Your task to perform on an android device: delete browsing data in the chrome app Image 0: 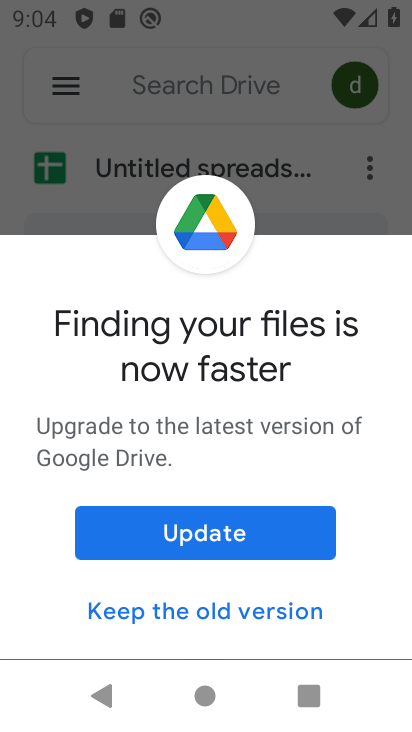
Step 0: press home button
Your task to perform on an android device: delete browsing data in the chrome app Image 1: 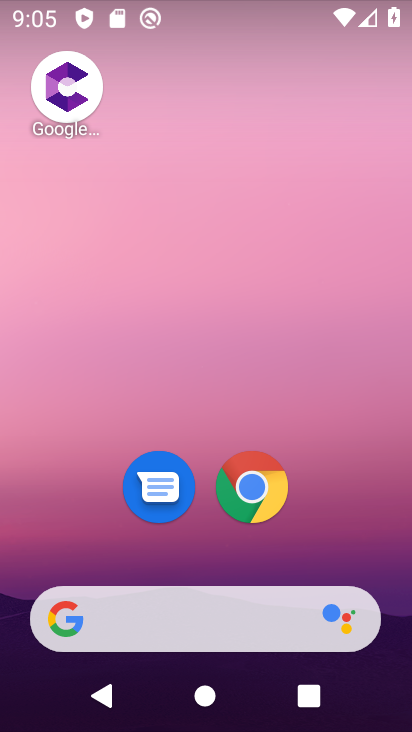
Step 1: click (279, 505)
Your task to perform on an android device: delete browsing data in the chrome app Image 2: 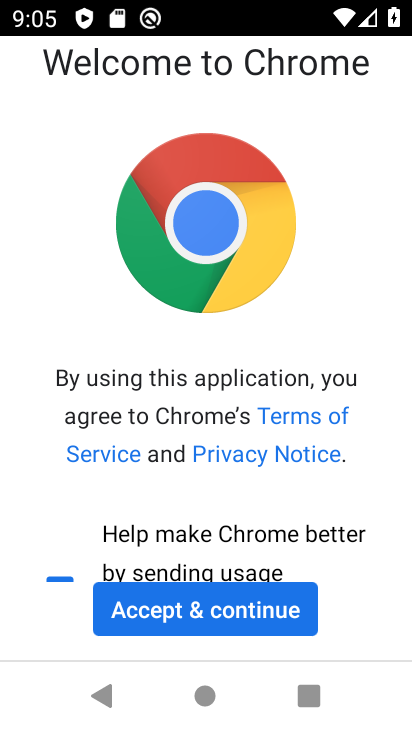
Step 2: click (266, 610)
Your task to perform on an android device: delete browsing data in the chrome app Image 3: 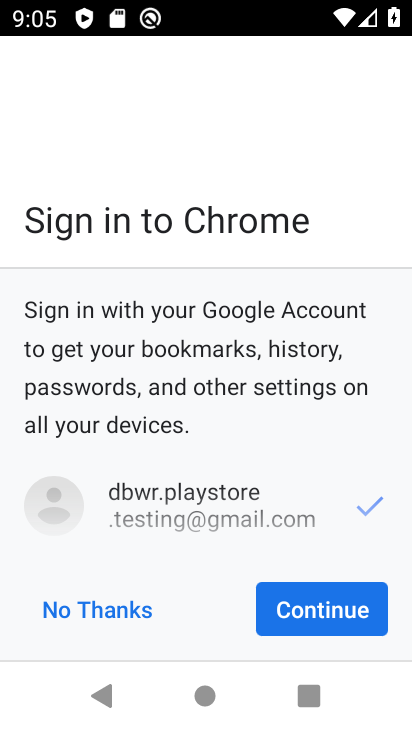
Step 3: click (346, 611)
Your task to perform on an android device: delete browsing data in the chrome app Image 4: 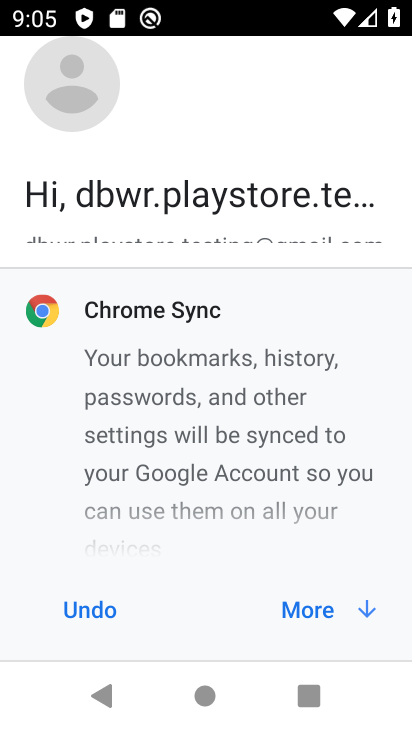
Step 4: click (324, 589)
Your task to perform on an android device: delete browsing data in the chrome app Image 5: 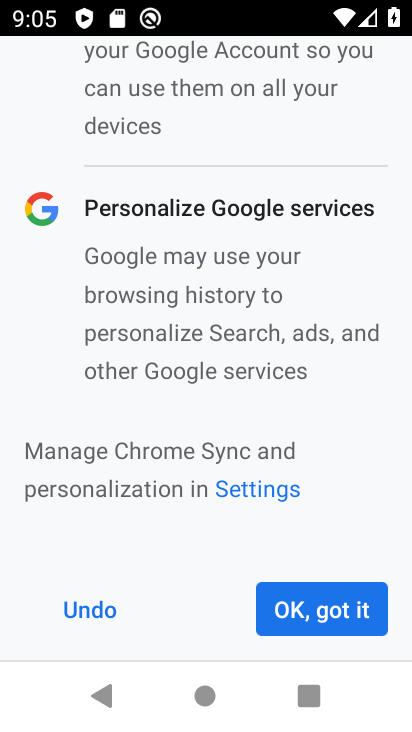
Step 5: click (324, 606)
Your task to perform on an android device: delete browsing data in the chrome app Image 6: 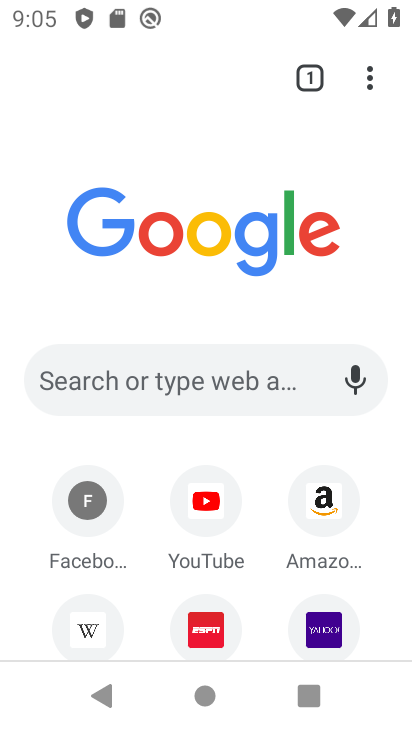
Step 6: click (368, 67)
Your task to perform on an android device: delete browsing data in the chrome app Image 7: 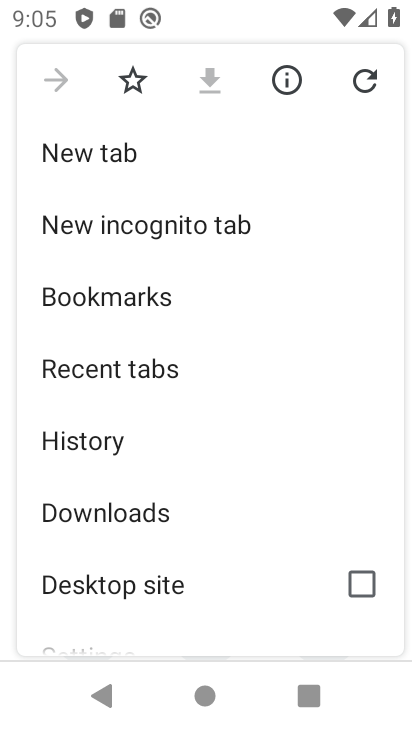
Step 7: click (131, 450)
Your task to perform on an android device: delete browsing data in the chrome app Image 8: 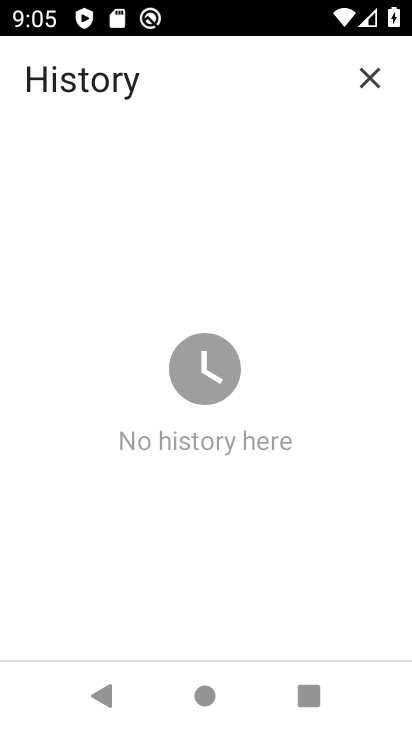
Step 8: task complete